Your task to perform on an android device: Do I have any events this weekend? Image 0: 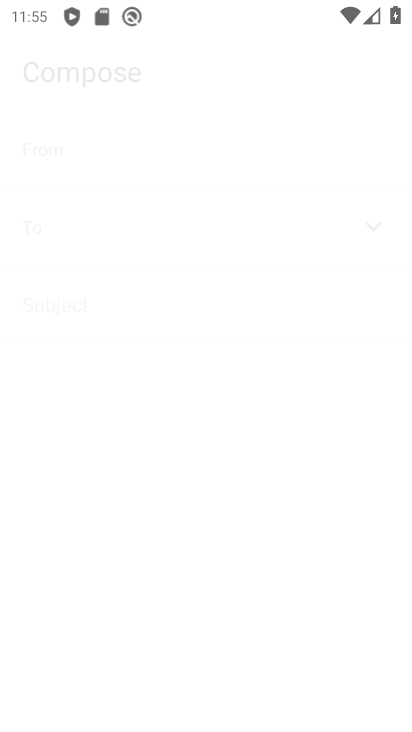
Step 0: drag from (327, 588) to (296, 332)
Your task to perform on an android device: Do I have any events this weekend? Image 1: 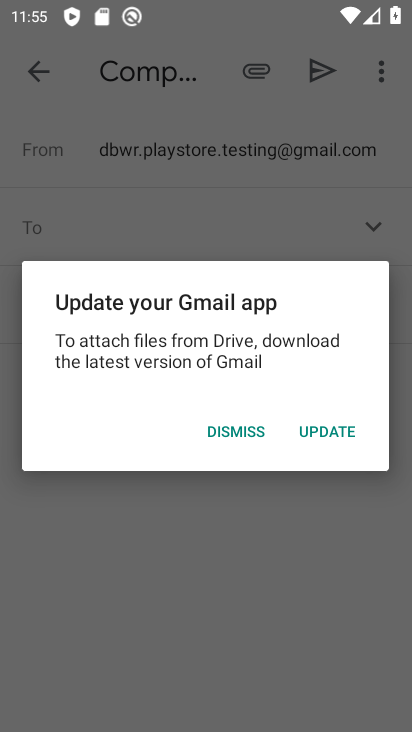
Step 1: press home button
Your task to perform on an android device: Do I have any events this weekend? Image 2: 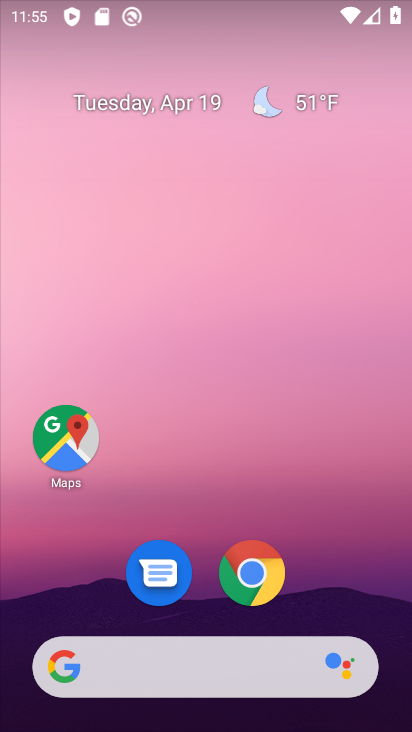
Step 2: drag from (330, 525) to (327, 115)
Your task to perform on an android device: Do I have any events this weekend? Image 3: 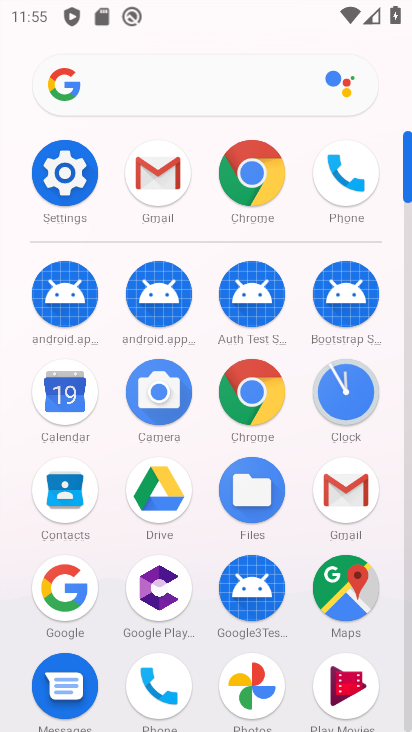
Step 3: click (58, 402)
Your task to perform on an android device: Do I have any events this weekend? Image 4: 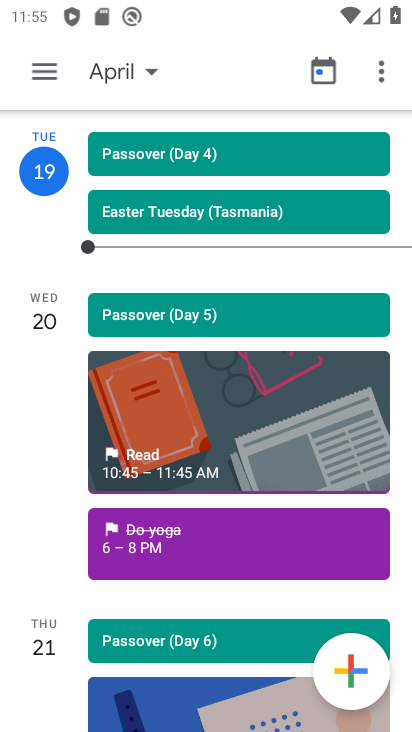
Step 4: click (143, 71)
Your task to perform on an android device: Do I have any events this weekend? Image 5: 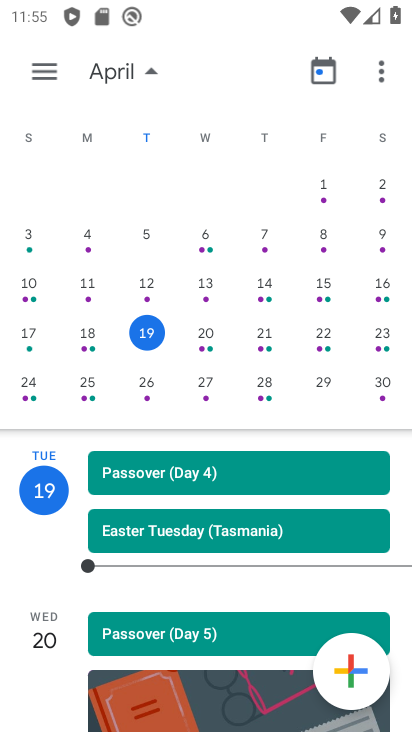
Step 5: drag from (358, 316) to (93, 264)
Your task to perform on an android device: Do I have any events this weekend? Image 6: 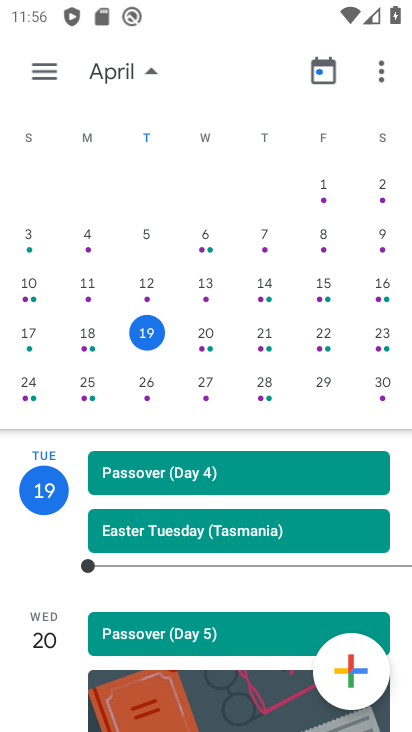
Step 6: click (200, 344)
Your task to perform on an android device: Do I have any events this weekend? Image 7: 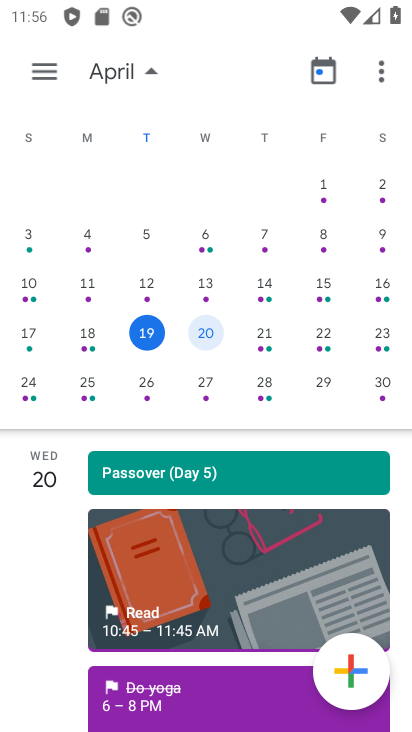
Step 7: click (263, 347)
Your task to perform on an android device: Do I have any events this weekend? Image 8: 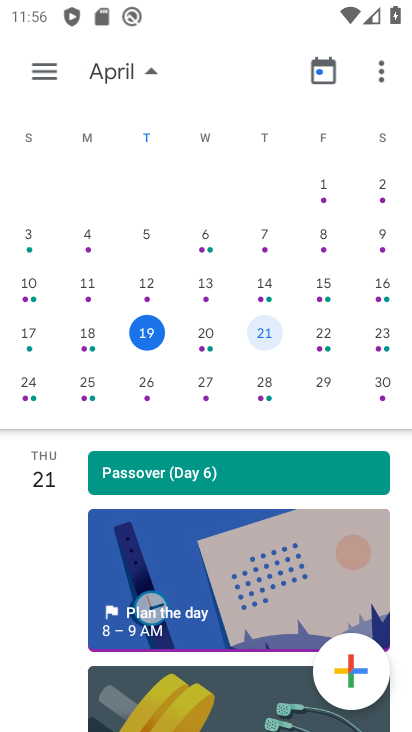
Step 8: click (321, 351)
Your task to perform on an android device: Do I have any events this weekend? Image 9: 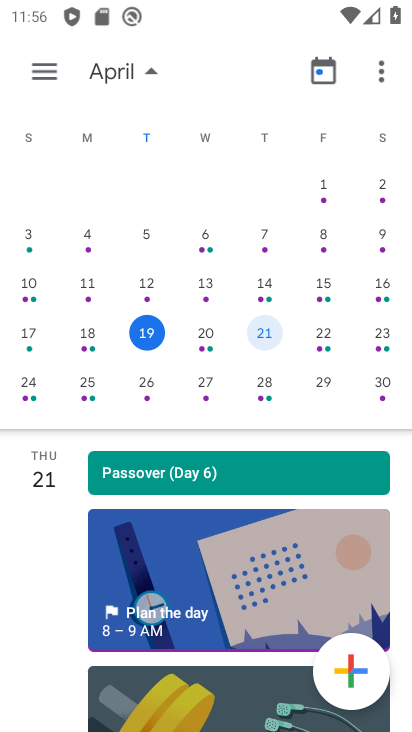
Step 9: click (390, 350)
Your task to perform on an android device: Do I have any events this weekend? Image 10: 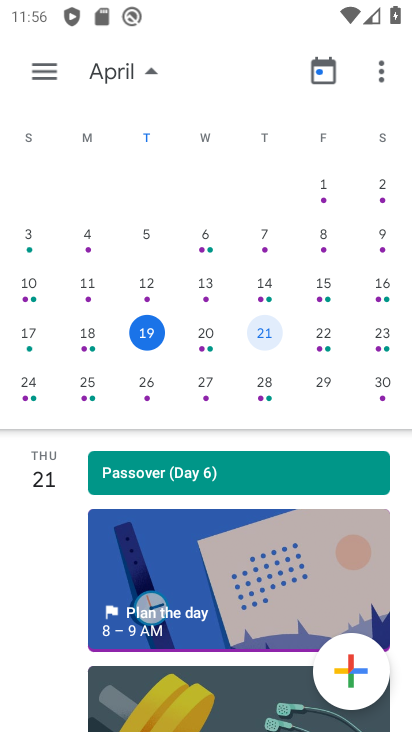
Step 10: click (317, 337)
Your task to perform on an android device: Do I have any events this weekend? Image 11: 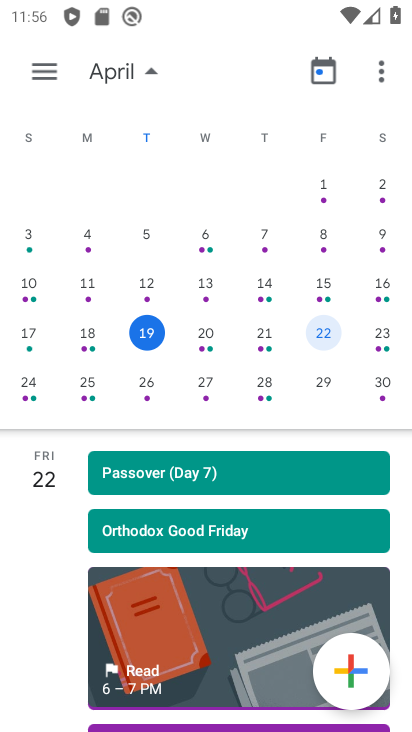
Step 11: click (378, 336)
Your task to perform on an android device: Do I have any events this weekend? Image 12: 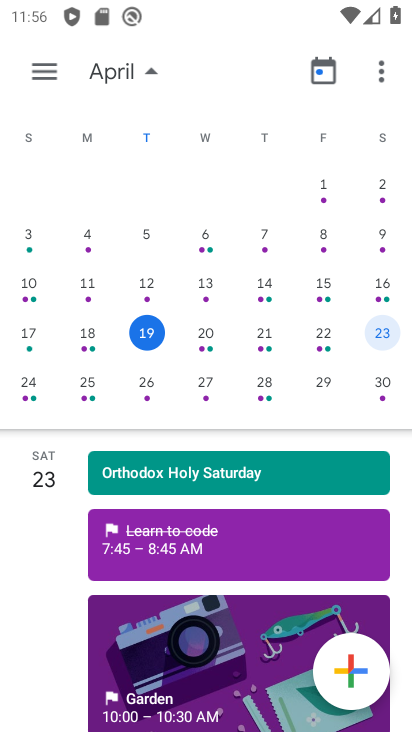
Step 12: task complete